Your task to perform on an android device: toggle sleep mode Image 0: 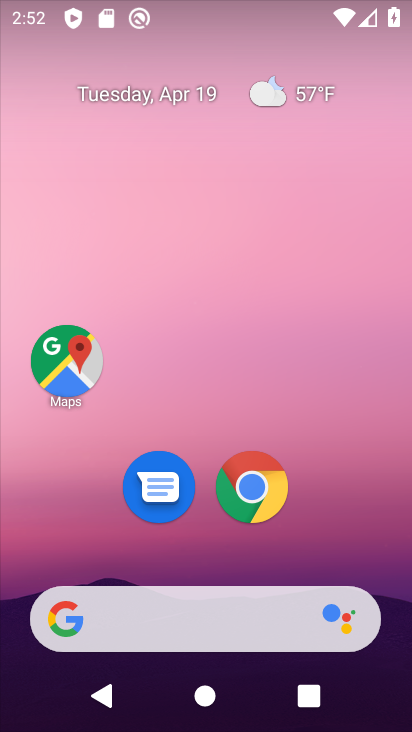
Step 0: drag from (322, 449) to (343, 55)
Your task to perform on an android device: toggle sleep mode Image 1: 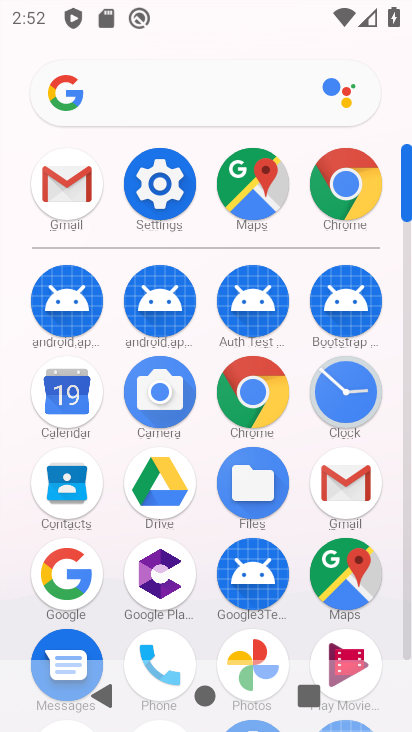
Step 1: click (165, 179)
Your task to perform on an android device: toggle sleep mode Image 2: 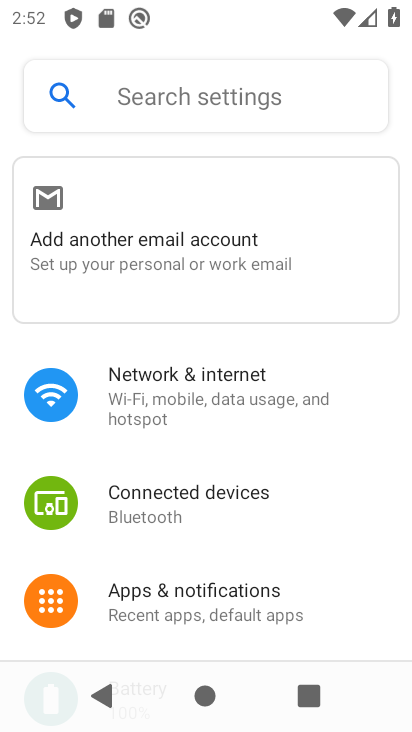
Step 2: click (240, 96)
Your task to perform on an android device: toggle sleep mode Image 3: 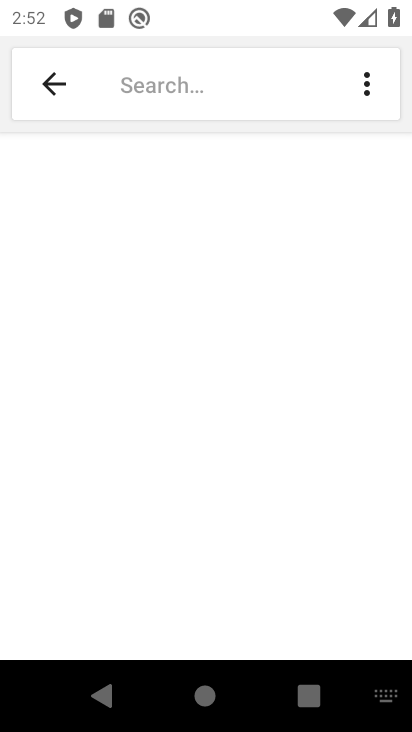
Step 3: type "sleep mode"
Your task to perform on an android device: toggle sleep mode Image 4: 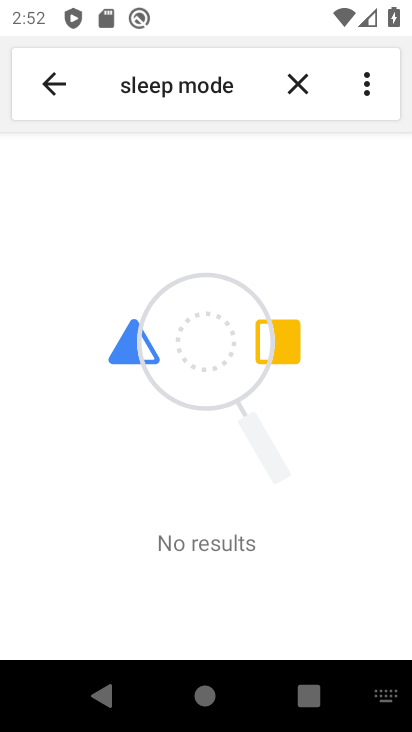
Step 4: task complete